Your task to perform on an android device: turn on notifications settings in the gmail app Image 0: 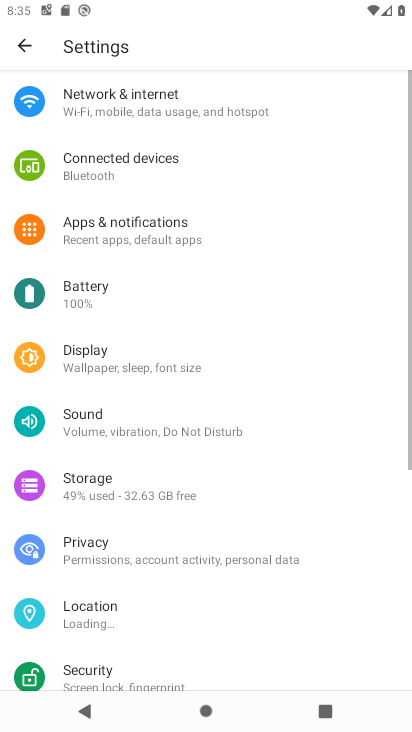
Step 0: press home button
Your task to perform on an android device: turn on notifications settings in the gmail app Image 1: 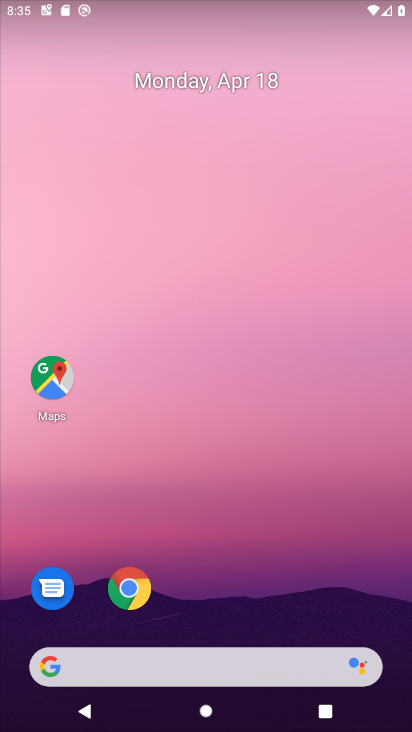
Step 1: drag from (16, 513) to (283, 61)
Your task to perform on an android device: turn on notifications settings in the gmail app Image 2: 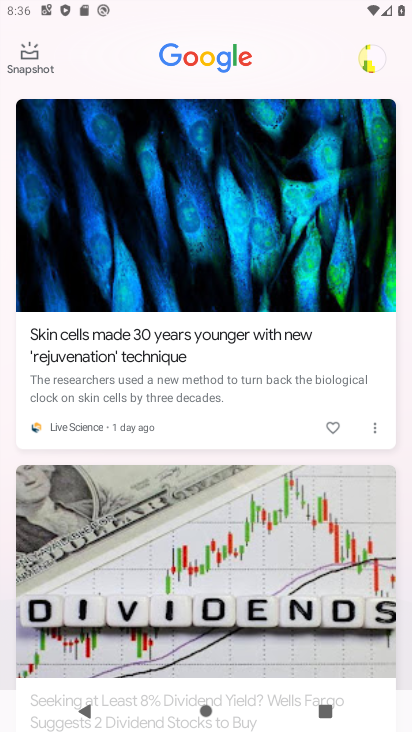
Step 2: press back button
Your task to perform on an android device: turn on notifications settings in the gmail app Image 3: 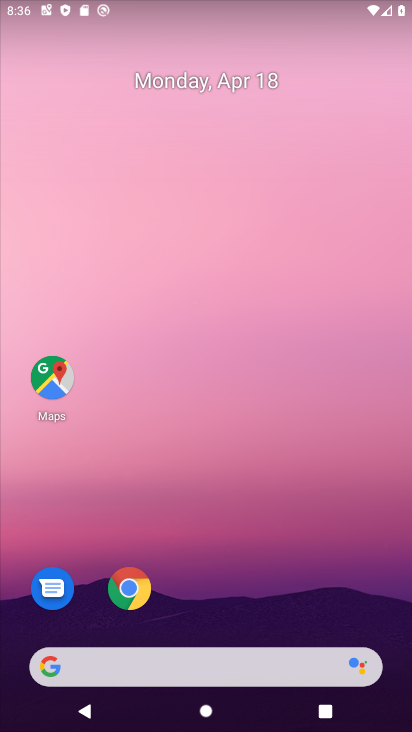
Step 3: drag from (281, 618) to (336, 64)
Your task to perform on an android device: turn on notifications settings in the gmail app Image 4: 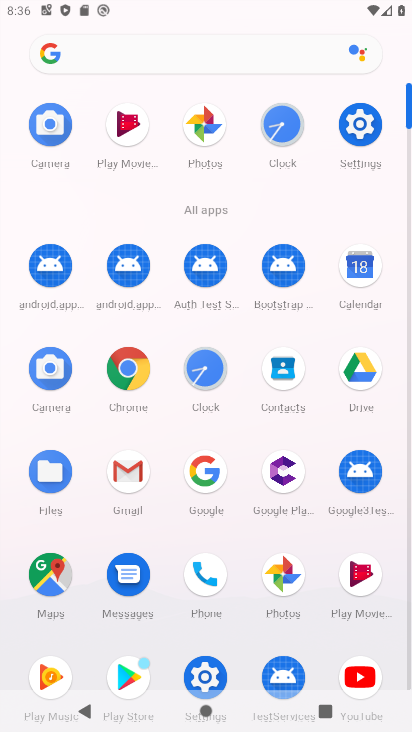
Step 4: click (119, 469)
Your task to perform on an android device: turn on notifications settings in the gmail app Image 5: 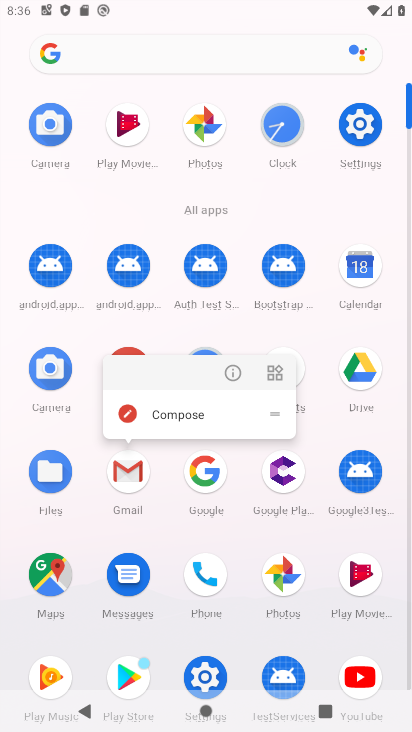
Step 5: click (119, 469)
Your task to perform on an android device: turn on notifications settings in the gmail app Image 6: 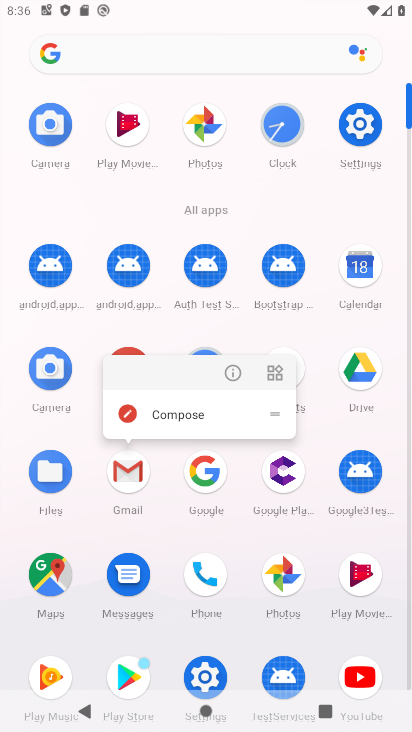
Step 6: click (119, 468)
Your task to perform on an android device: turn on notifications settings in the gmail app Image 7: 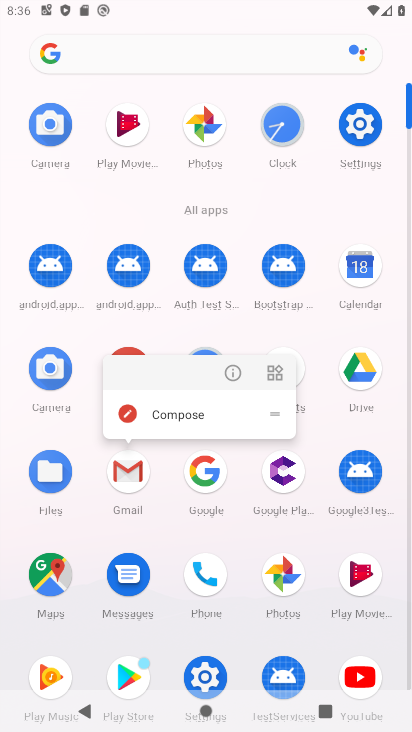
Step 7: click (119, 468)
Your task to perform on an android device: turn on notifications settings in the gmail app Image 8: 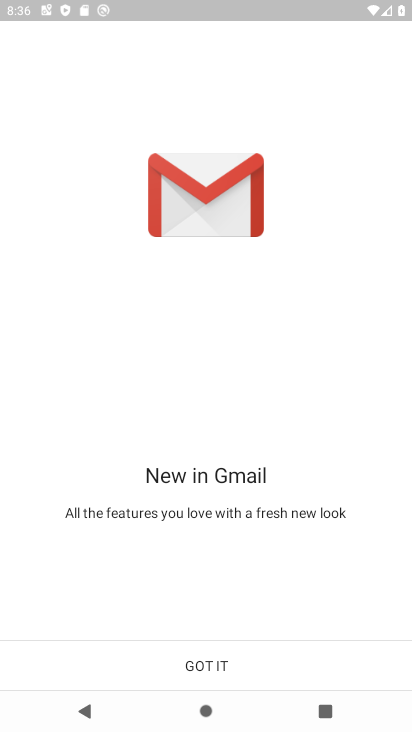
Step 8: click (268, 673)
Your task to perform on an android device: turn on notifications settings in the gmail app Image 9: 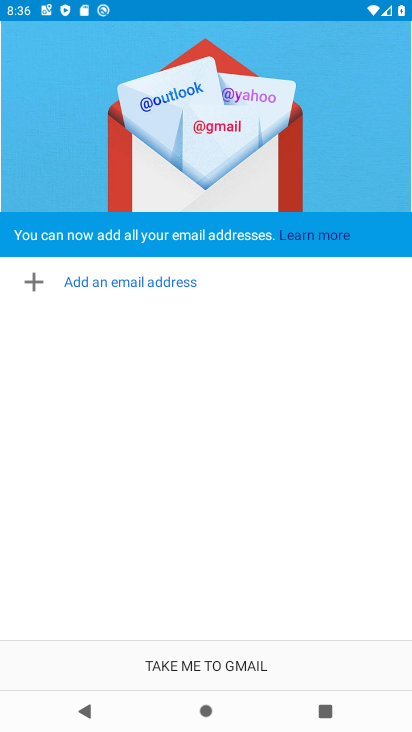
Step 9: click (268, 673)
Your task to perform on an android device: turn on notifications settings in the gmail app Image 10: 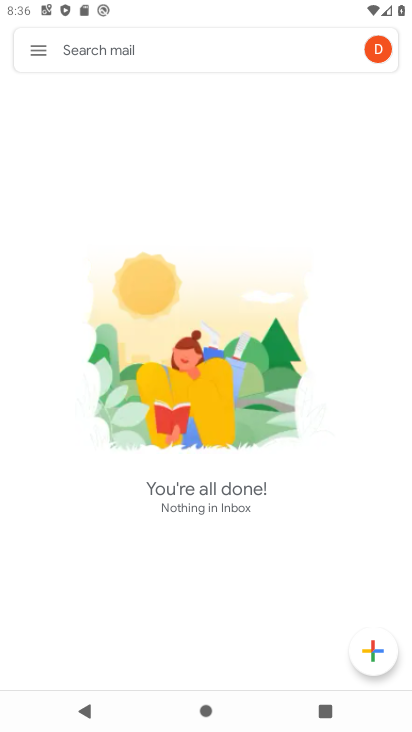
Step 10: click (40, 54)
Your task to perform on an android device: turn on notifications settings in the gmail app Image 11: 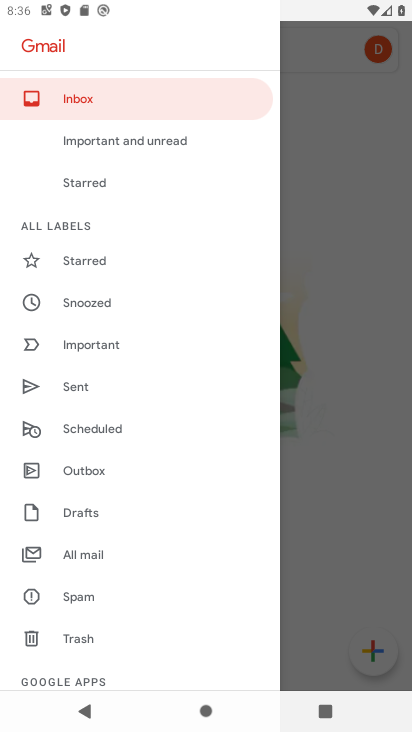
Step 11: drag from (119, 652) to (191, 220)
Your task to perform on an android device: turn on notifications settings in the gmail app Image 12: 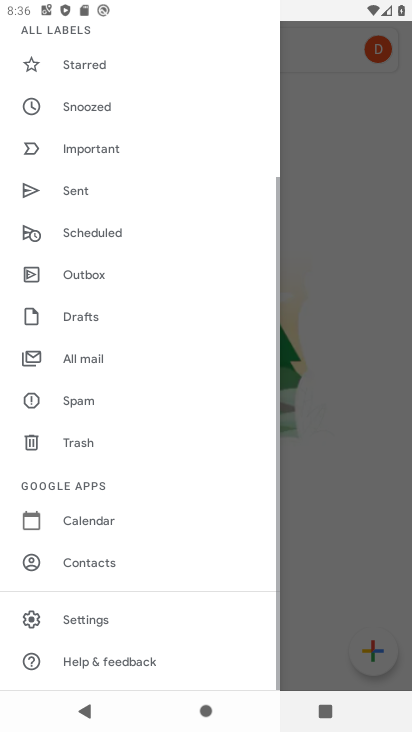
Step 12: click (116, 616)
Your task to perform on an android device: turn on notifications settings in the gmail app Image 13: 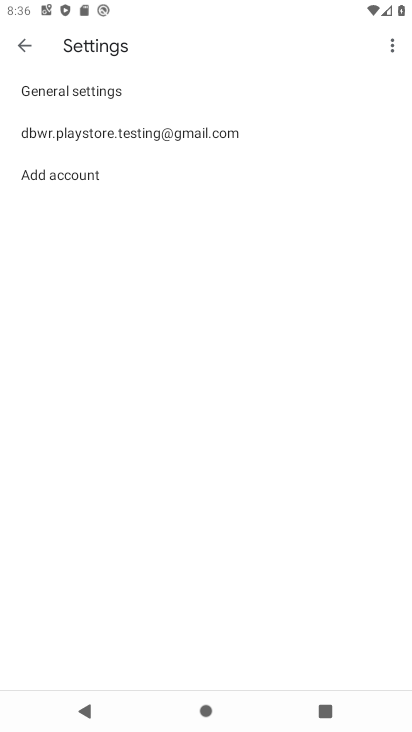
Step 13: click (206, 102)
Your task to perform on an android device: turn on notifications settings in the gmail app Image 14: 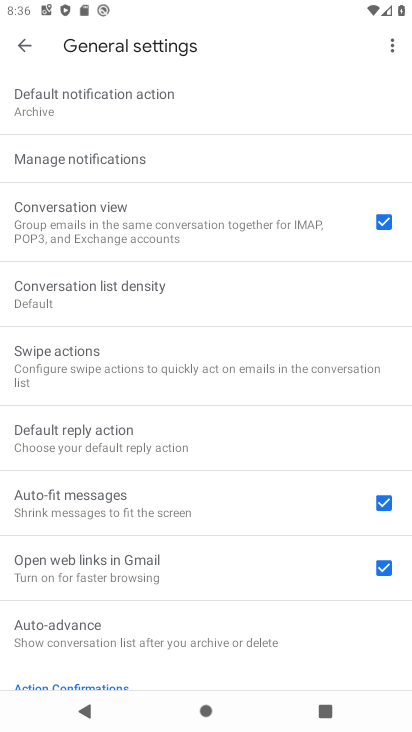
Step 14: press back button
Your task to perform on an android device: turn on notifications settings in the gmail app Image 15: 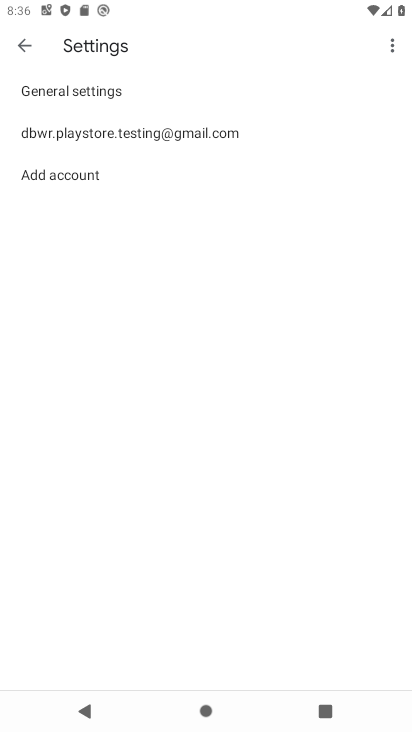
Step 15: click (130, 148)
Your task to perform on an android device: turn on notifications settings in the gmail app Image 16: 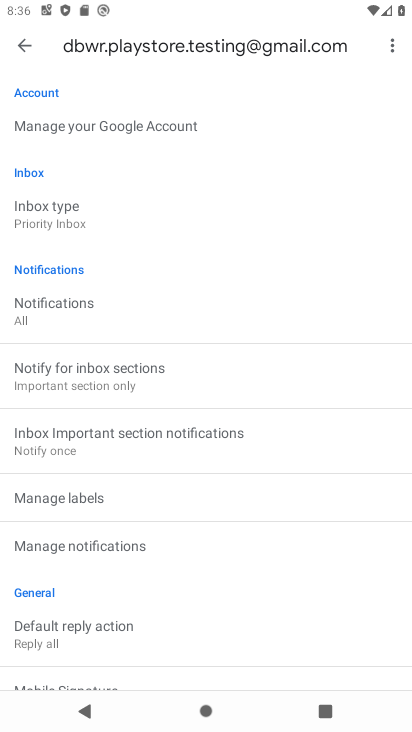
Step 16: click (157, 301)
Your task to perform on an android device: turn on notifications settings in the gmail app Image 17: 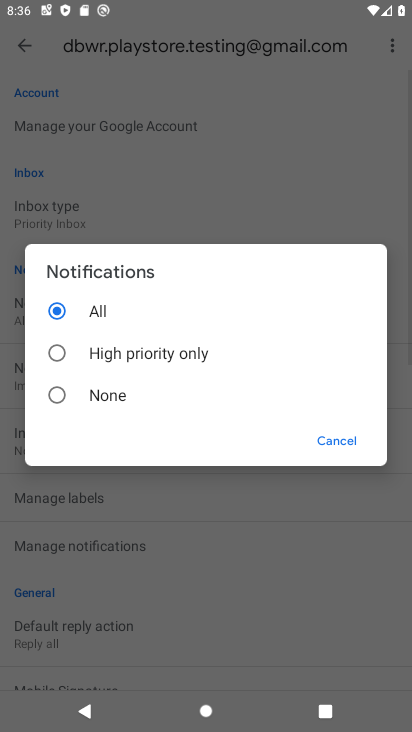
Step 17: task complete